Your task to perform on an android device: Search for hotels in San Diego Image 0: 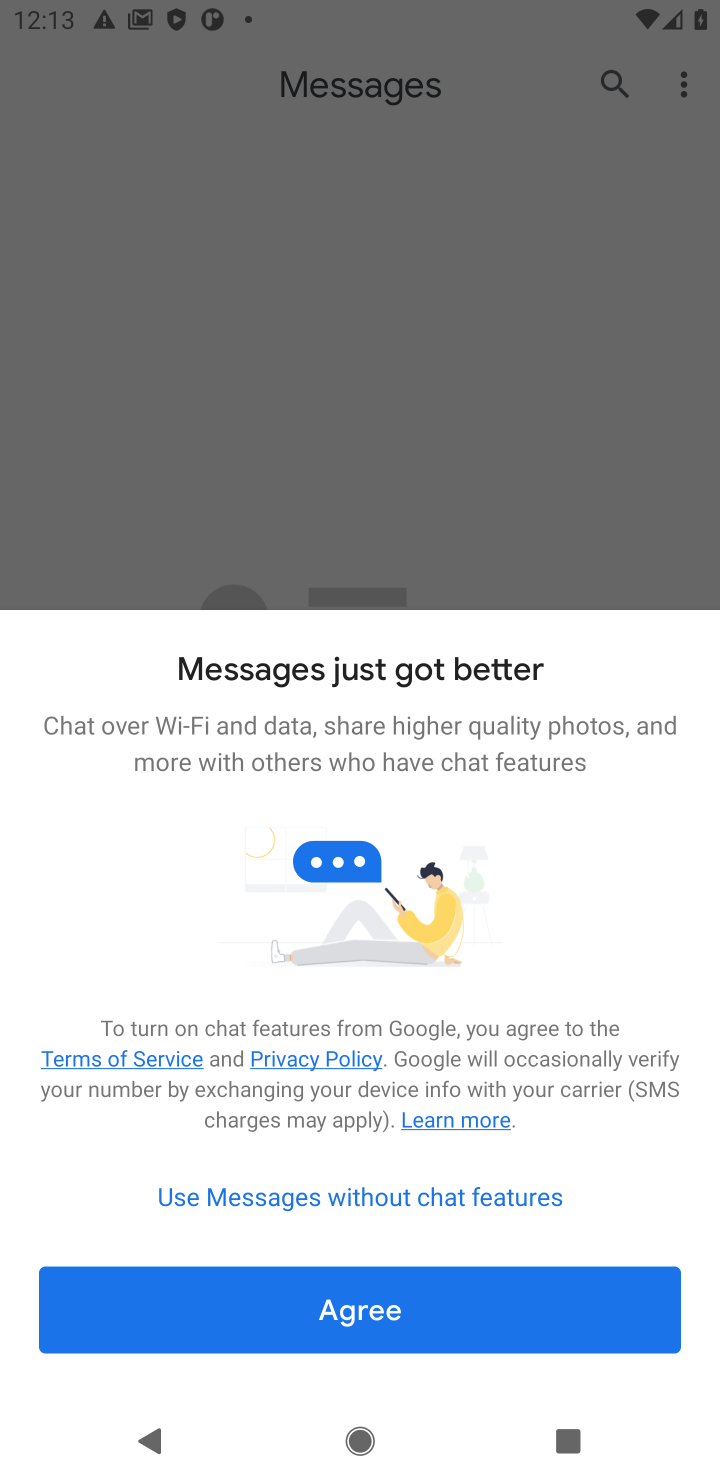
Step 0: press home button
Your task to perform on an android device: Search for hotels in San Diego Image 1: 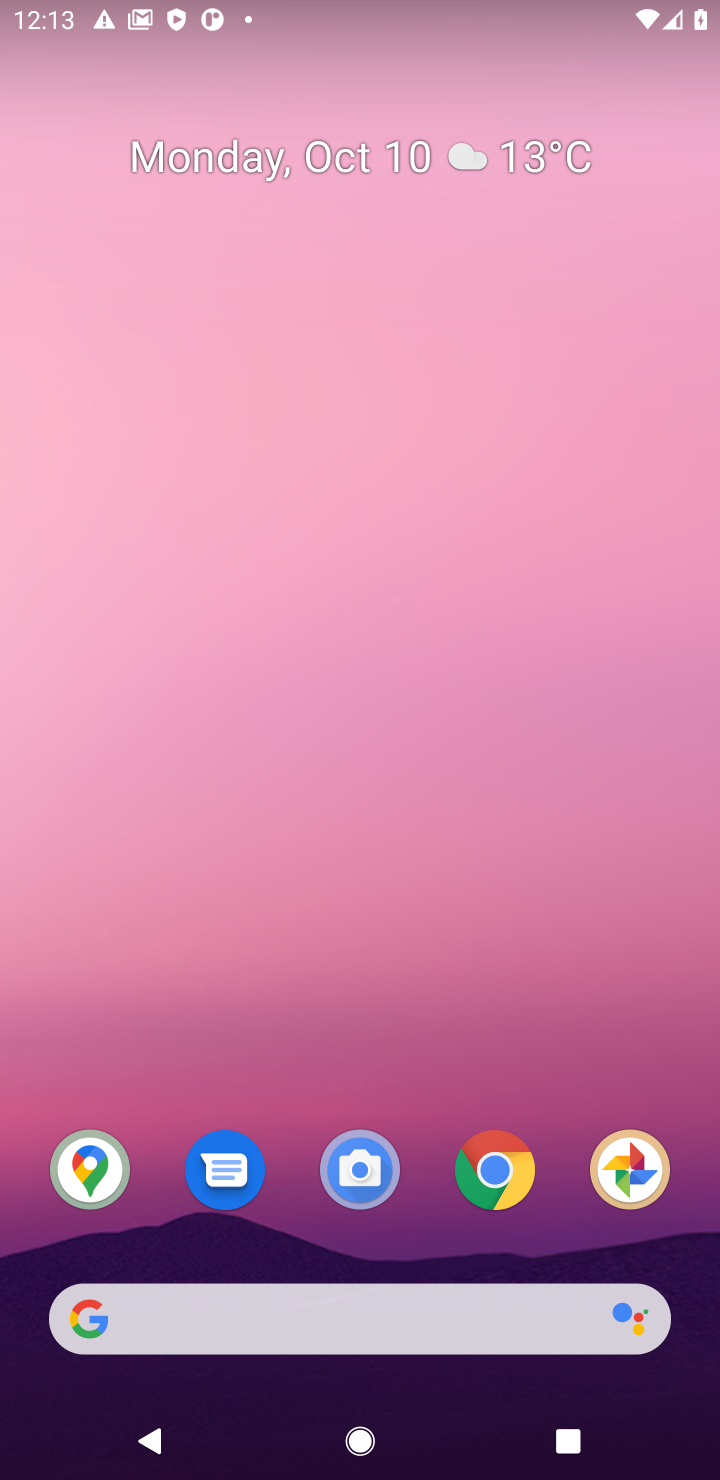
Step 1: click (487, 1170)
Your task to perform on an android device: Search for hotels in San Diego Image 2: 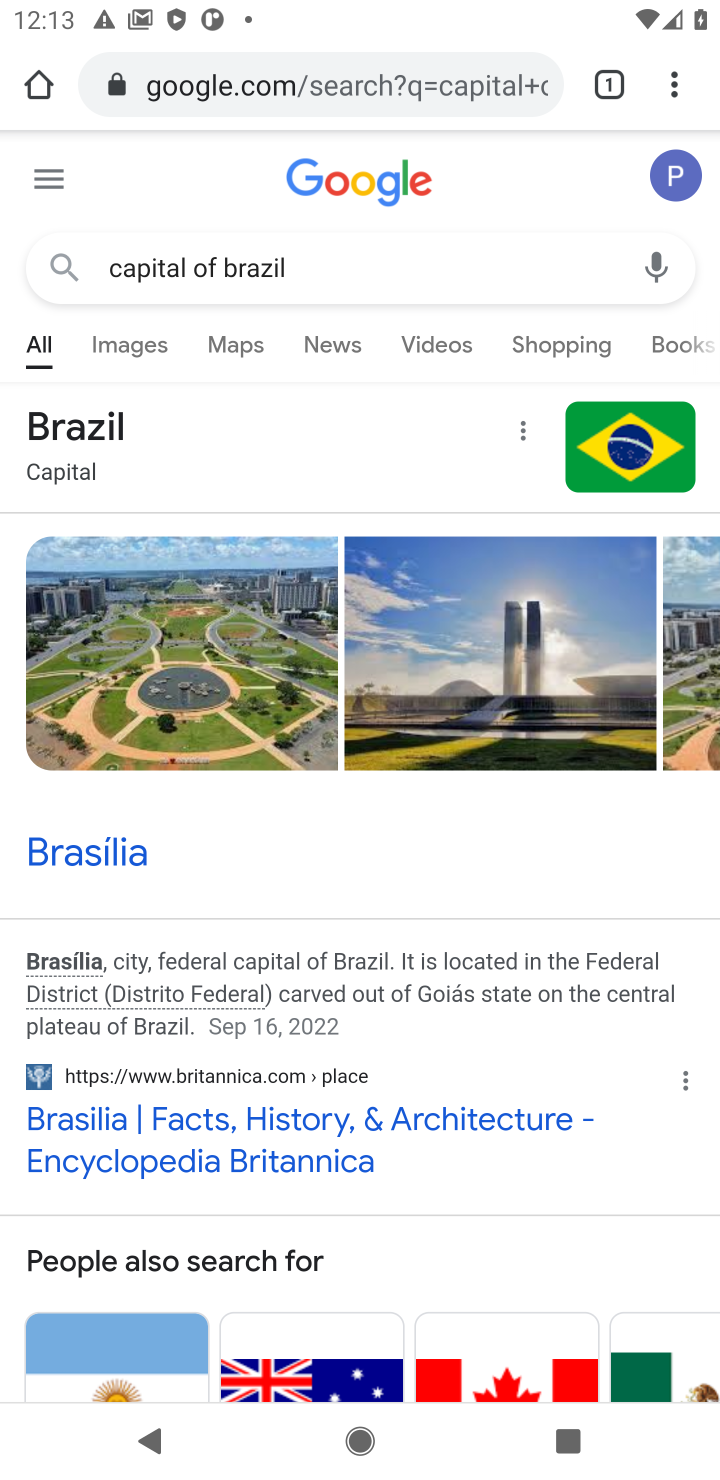
Step 2: click (421, 84)
Your task to perform on an android device: Search for hotels in San Diego Image 3: 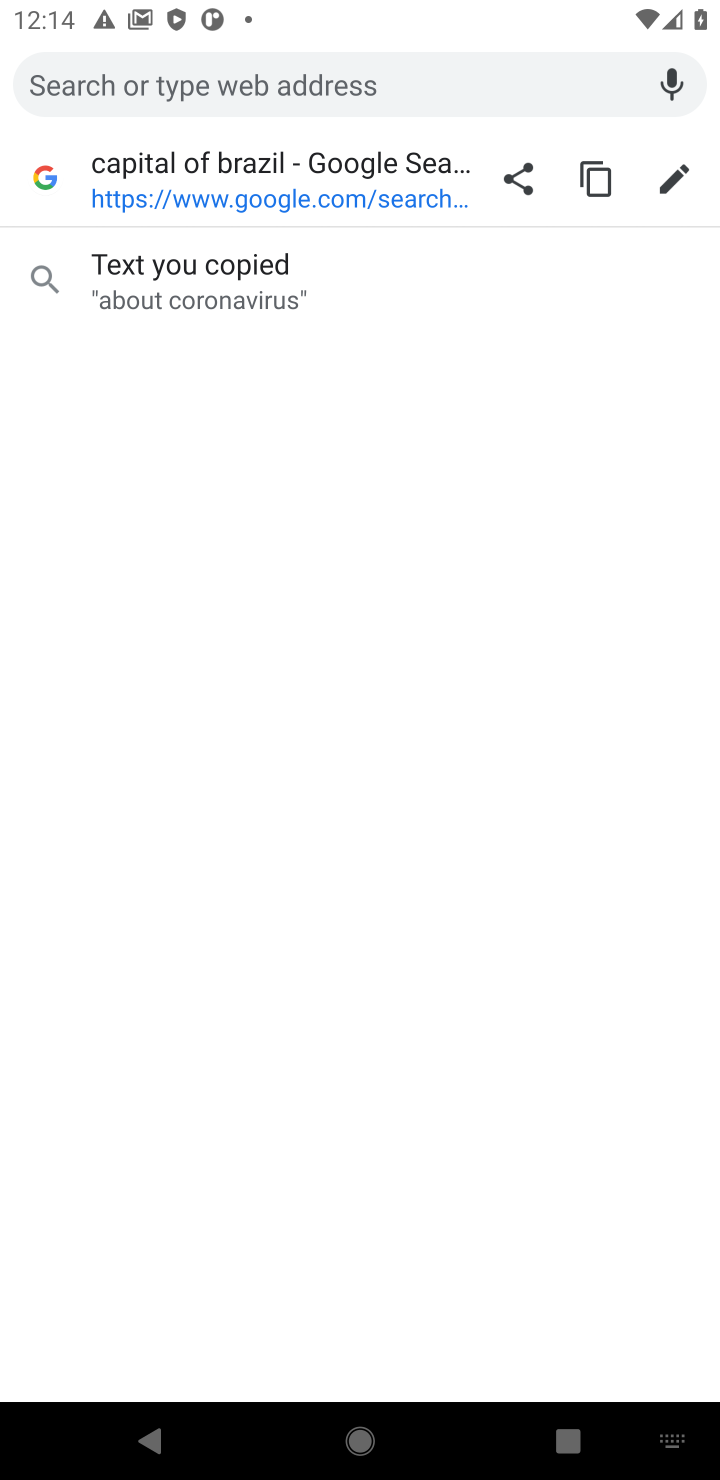
Step 3: type "Hotel in San Diego"
Your task to perform on an android device: Search for hotels in San Diego Image 4: 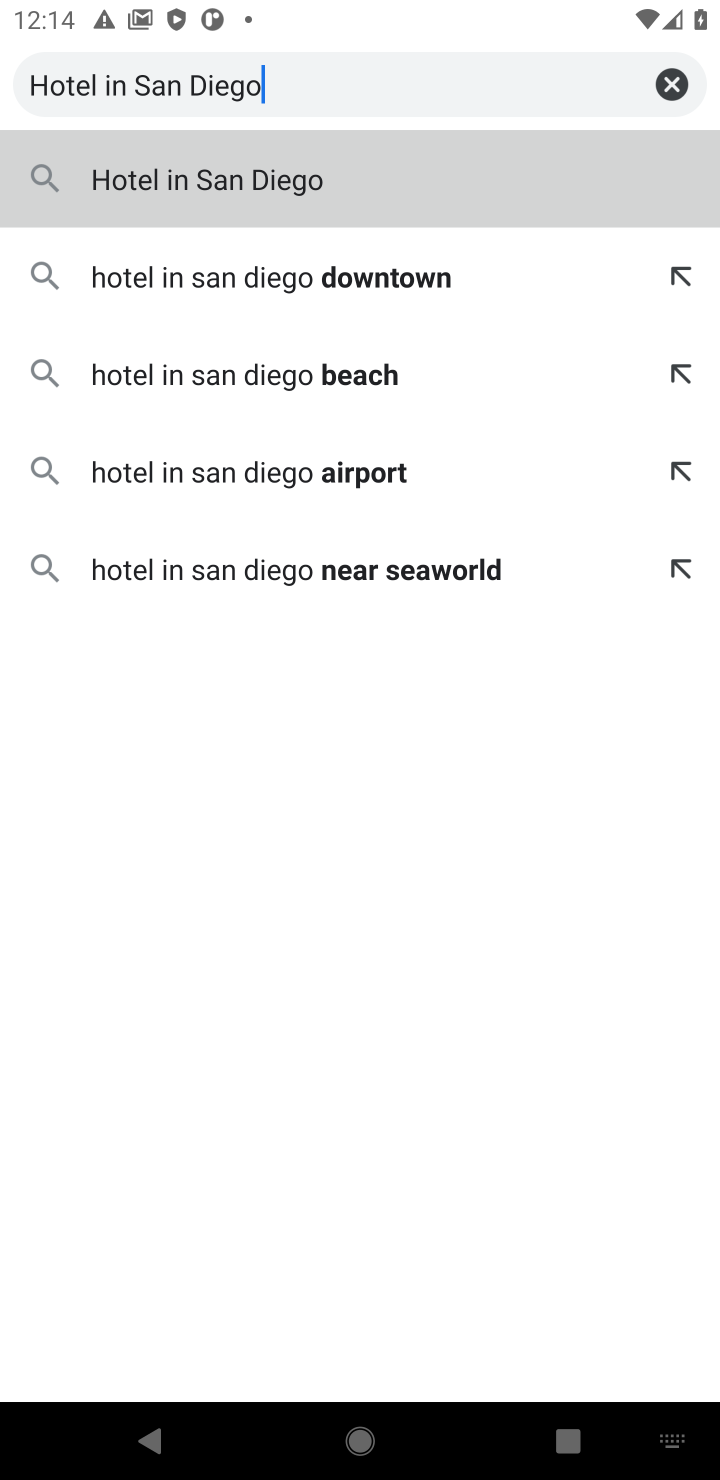
Step 4: click (286, 186)
Your task to perform on an android device: Search for hotels in San Diego Image 5: 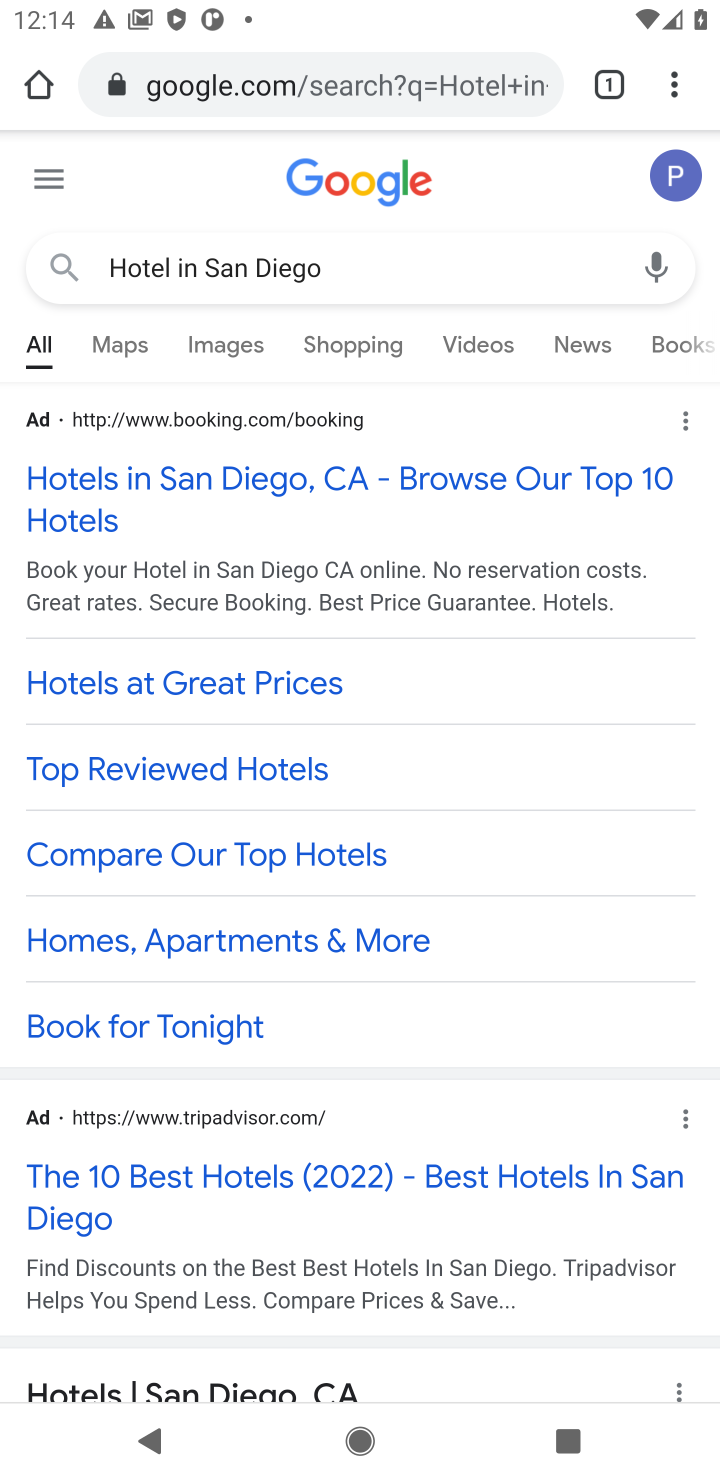
Step 5: task complete